Your task to perform on an android device: turn on location history Image 0: 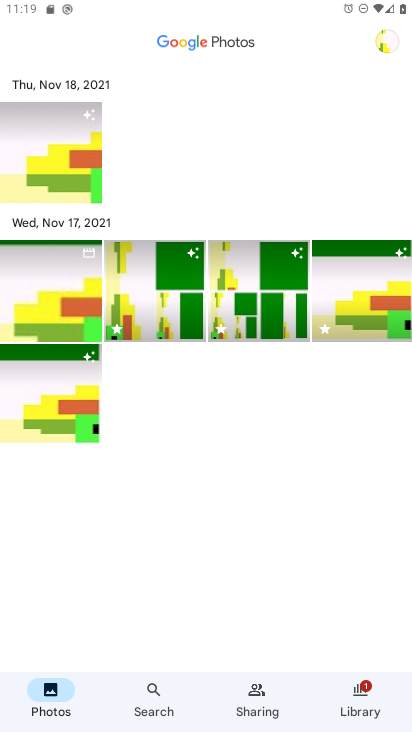
Step 0: press home button
Your task to perform on an android device: turn on location history Image 1: 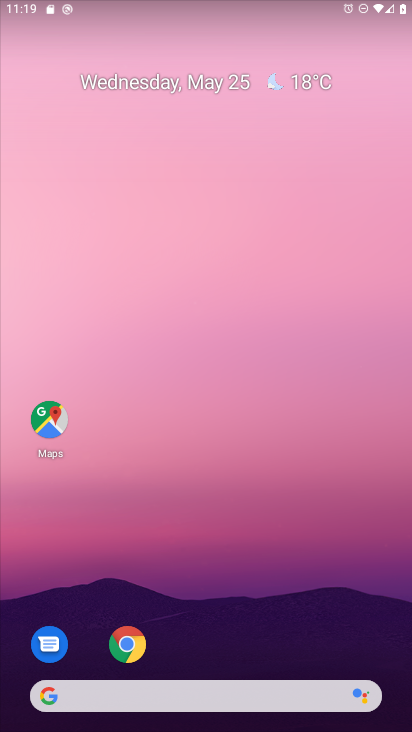
Step 1: drag from (222, 653) to (223, 53)
Your task to perform on an android device: turn on location history Image 2: 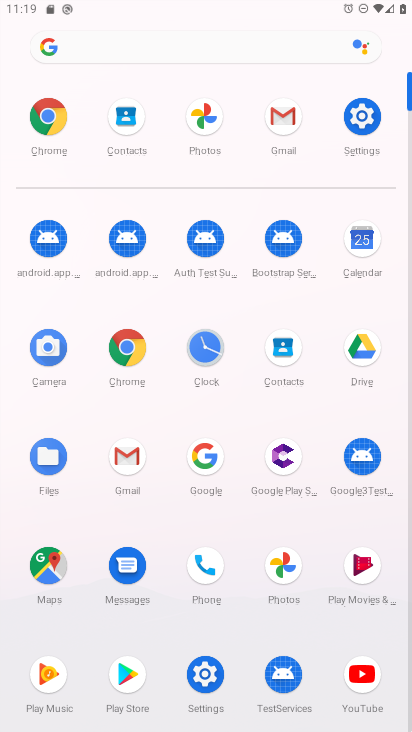
Step 2: click (358, 116)
Your task to perform on an android device: turn on location history Image 3: 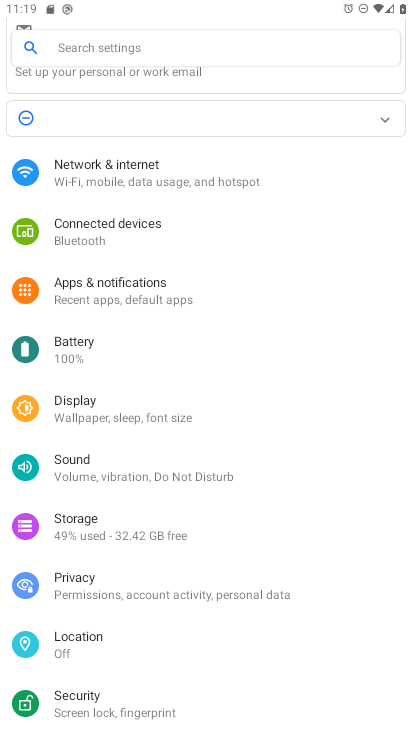
Step 3: click (113, 643)
Your task to perform on an android device: turn on location history Image 4: 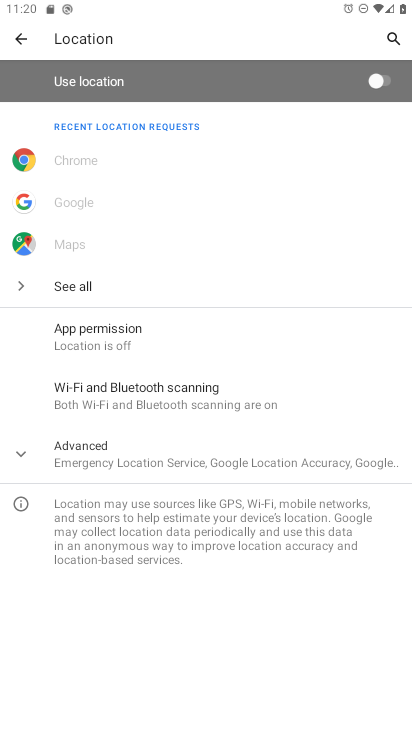
Step 4: click (97, 450)
Your task to perform on an android device: turn on location history Image 5: 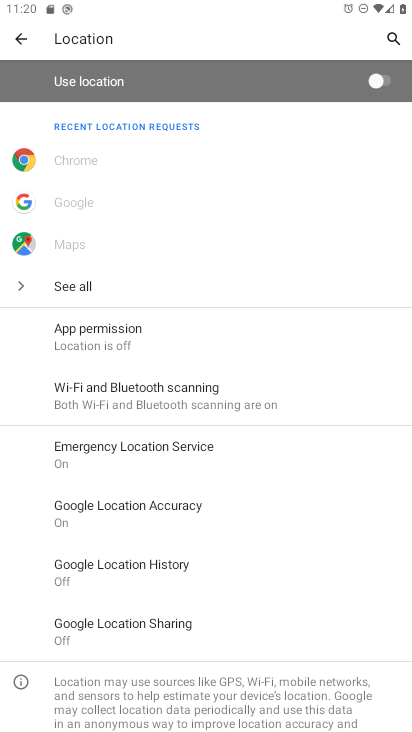
Step 5: click (146, 566)
Your task to perform on an android device: turn on location history Image 6: 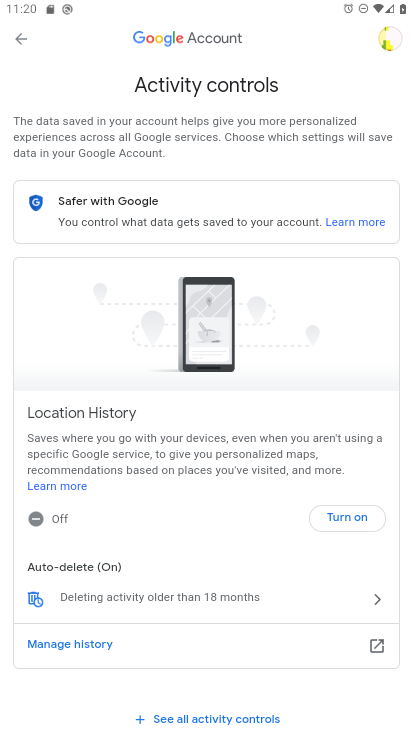
Step 6: click (363, 518)
Your task to perform on an android device: turn on location history Image 7: 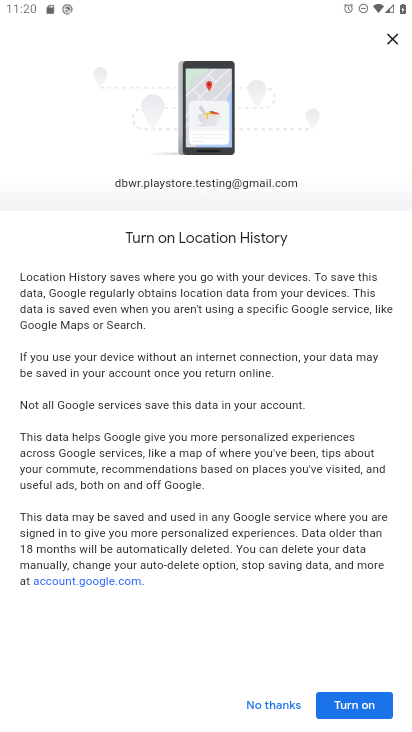
Step 7: click (357, 705)
Your task to perform on an android device: turn on location history Image 8: 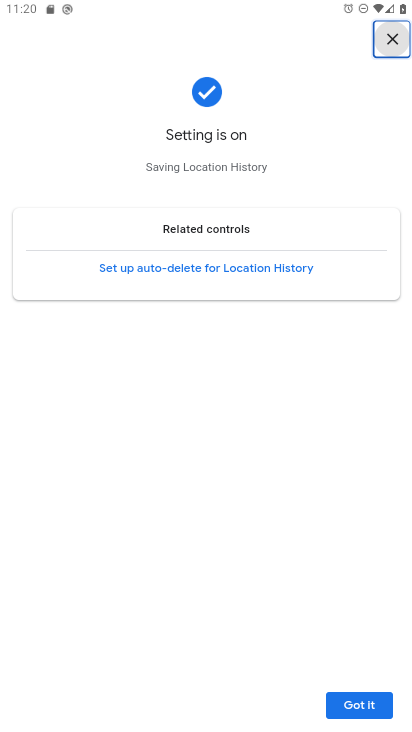
Step 8: click (360, 702)
Your task to perform on an android device: turn on location history Image 9: 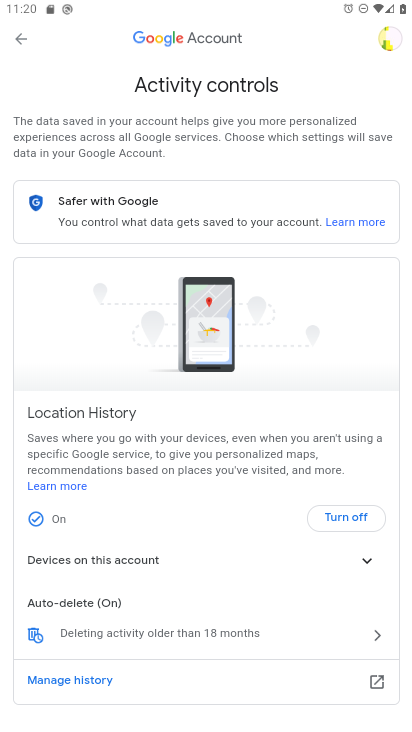
Step 9: task complete